Your task to perform on an android device: allow cookies in the chrome app Image 0: 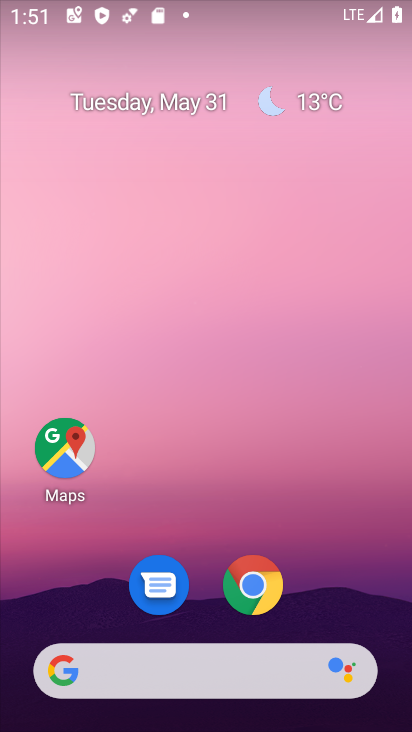
Step 0: click (258, 583)
Your task to perform on an android device: allow cookies in the chrome app Image 1: 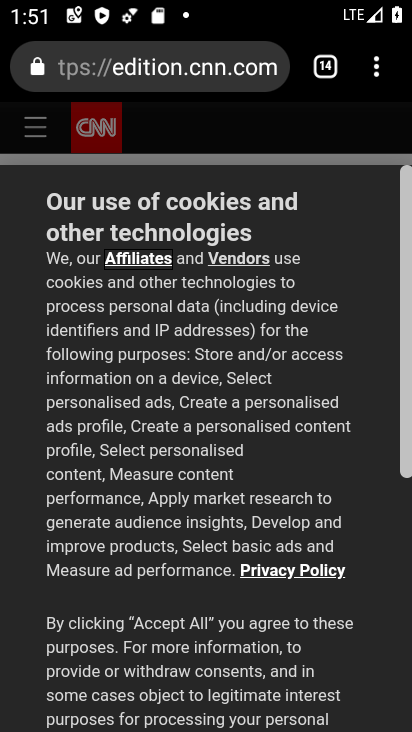
Step 1: click (374, 68)
Your task to perform on an android device: allow cookies in the chrome app Image 2: 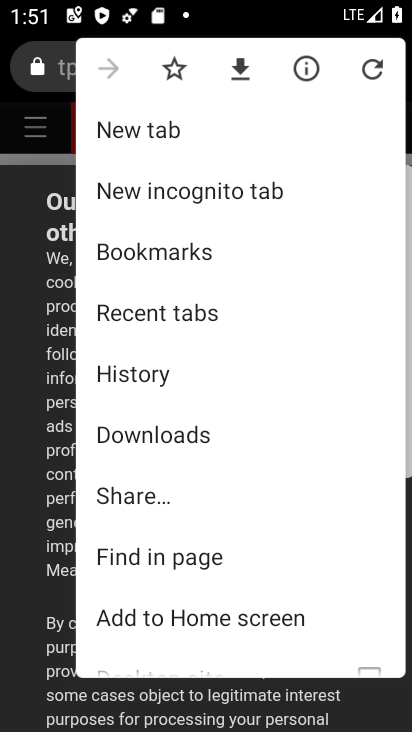
Step 2: drag from (262, 427) to (259, 184)
Your task to perform on an android device: allow cookies in the chrome app Image 3: 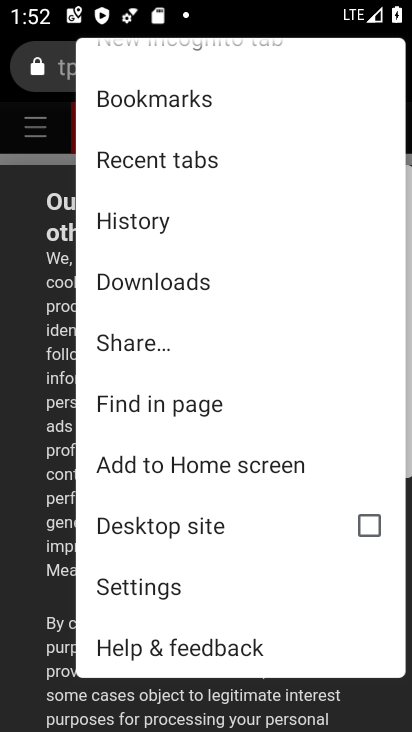
Step 3: click (197, 579)
Your task to perform on an android device: allow cookies in the chrome app Image 4: 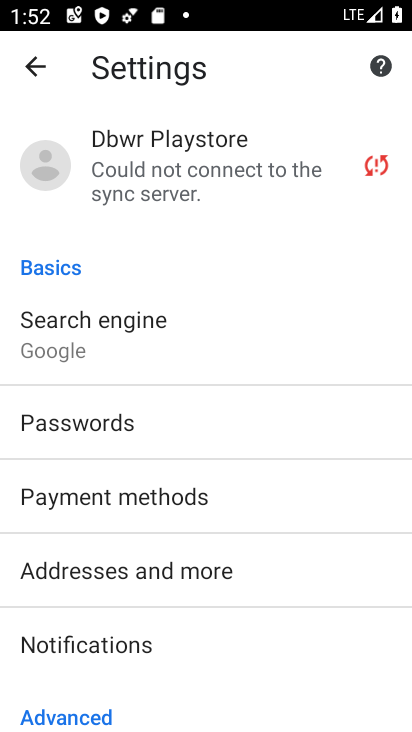
Step 4: drag from (197, 578) to (220, 282)
Your task to perform on an android device: allow cookies in the chrome app Image 5: 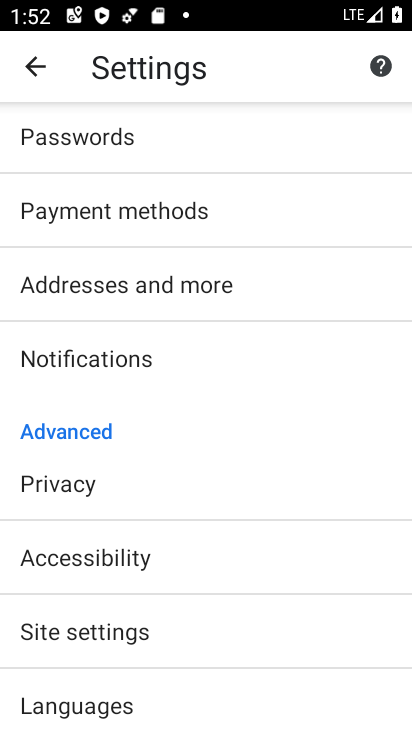
Step 5: click (177, 631)
Your task to perform on an android device: allow cookies in the chrome app Image 6: 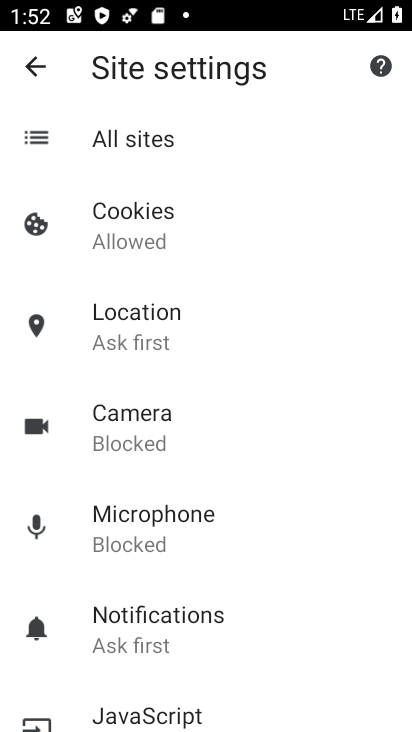
Step 6: click (172, 238)
Your task to perform on an android device: allow cookies in the chrome app Image 7: 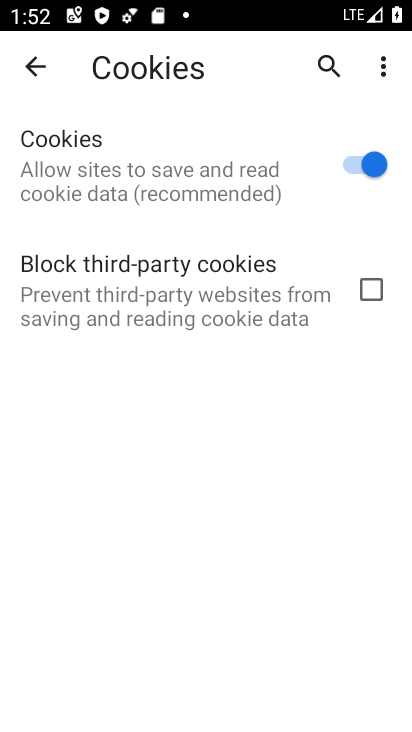
Step 7: task complete